Your task to perform on an android device: turn pop-ups on in chrome Image 0: 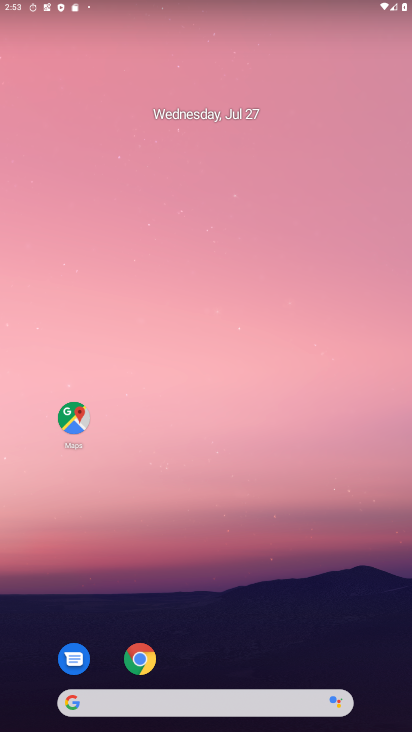
Step 0: click (141, 662)
Your task to perform on an android device: turn pop-ups on in chrome Image 1: 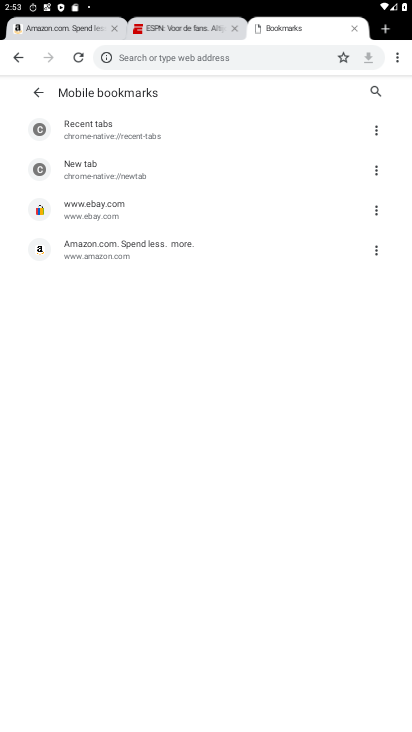
Step 1: click (399, 57)
Your task to perform on an android device: turn pop-ups on in chrome Image 2: 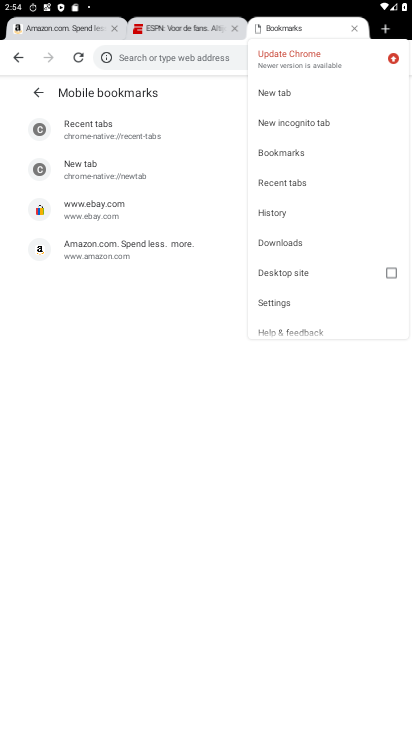
Step 2: click (272, 298)
Your task to perform on an android device: turn pop-ups on in chrome Image 3: 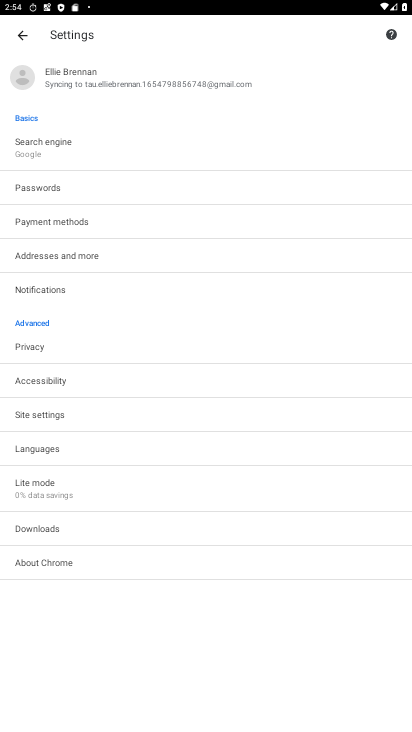
Step 3: click (40, 413)
Your task to perform on an android device: turn pop-ups on in chrome Image 4: 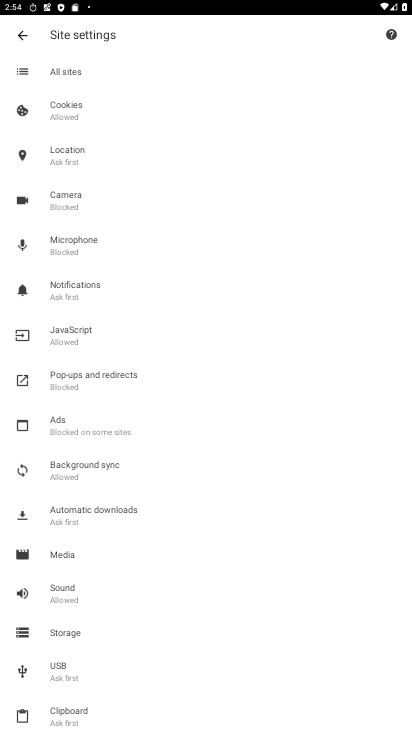
Step 4: click (73, 379)
Your task to perform on an android device: turn pop-ups on in chrome Image 5: 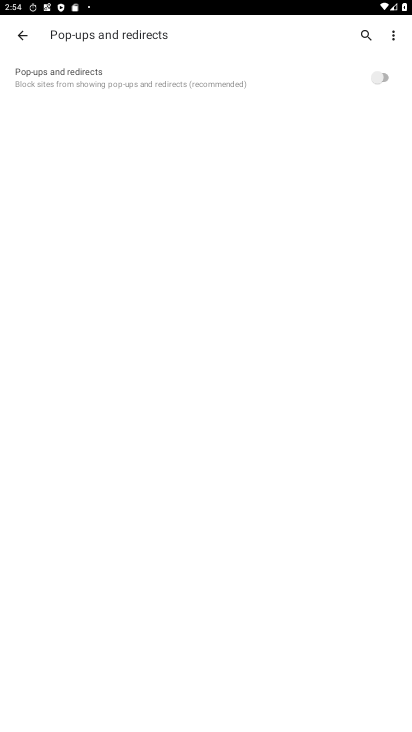
Step 5: click (384, 74)
Your task to perform on an android device: turn pop-ups on in chrome Image 6: 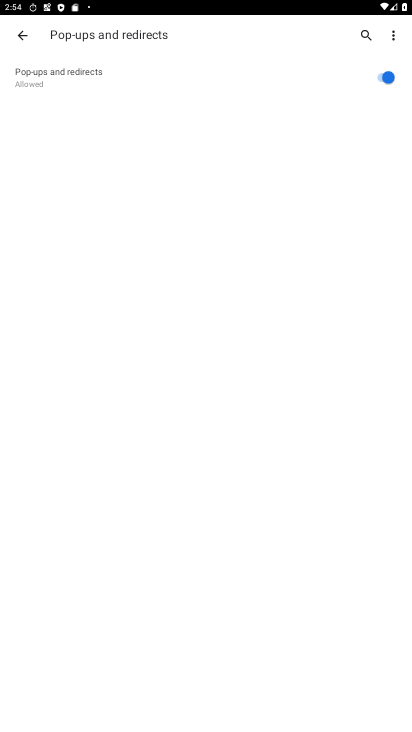
Step 6: task complete